Your task to perform on an android device: What's the news about the US dollar? Image 0: 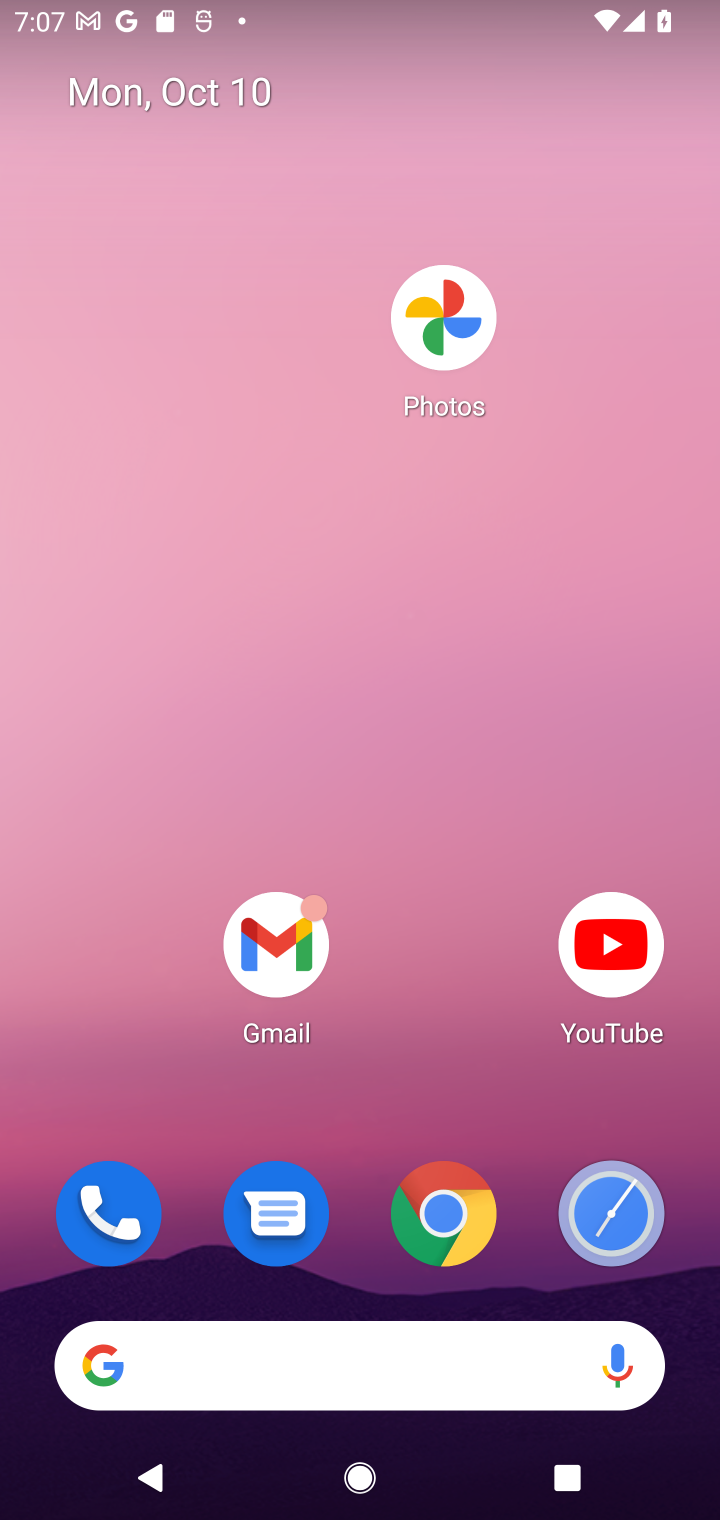
Step 0: click (335, 1338)
Your task to perform on an android device: What's the news about the US dollar? Image 1: 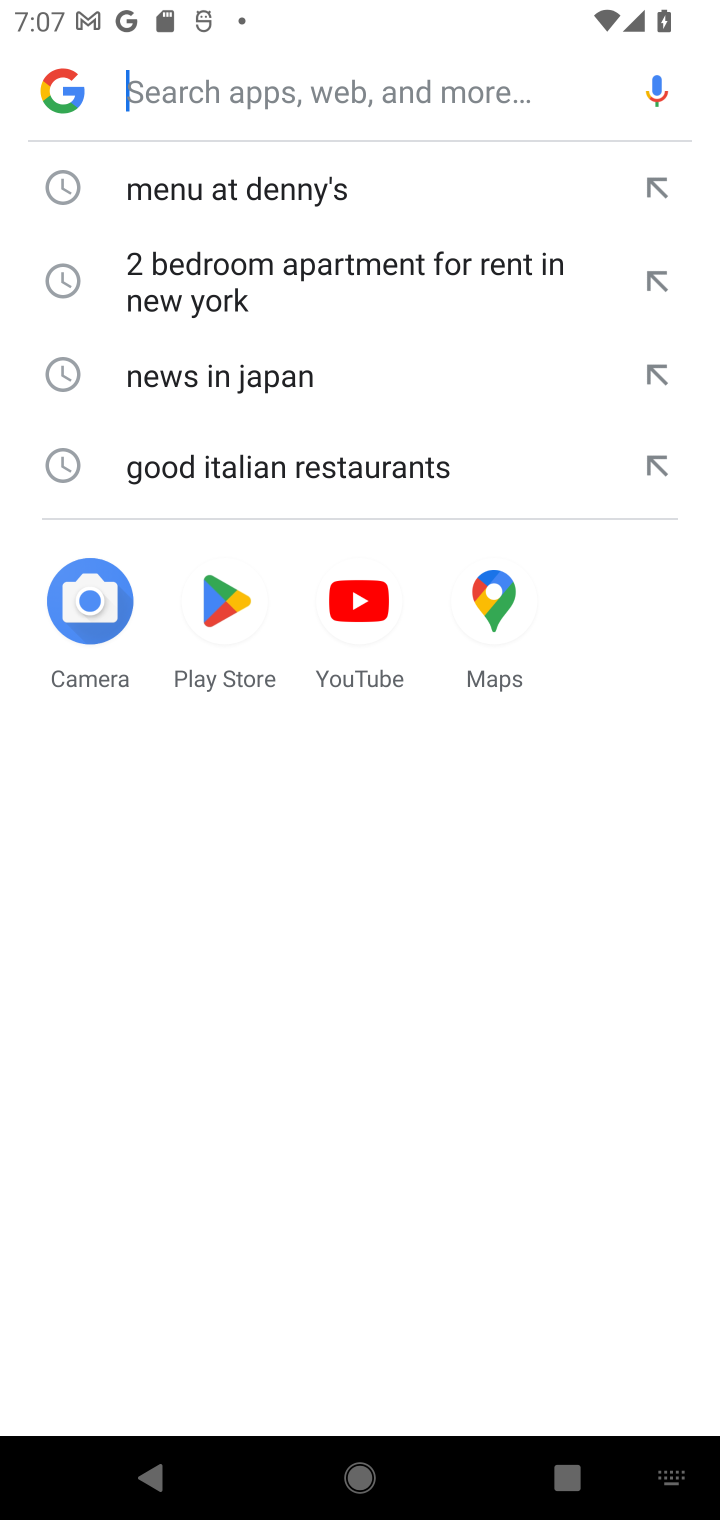
Step 1: type "news about the US dollar"
Your task to perform on an android device: What's the news about the US dollar? Image 2: 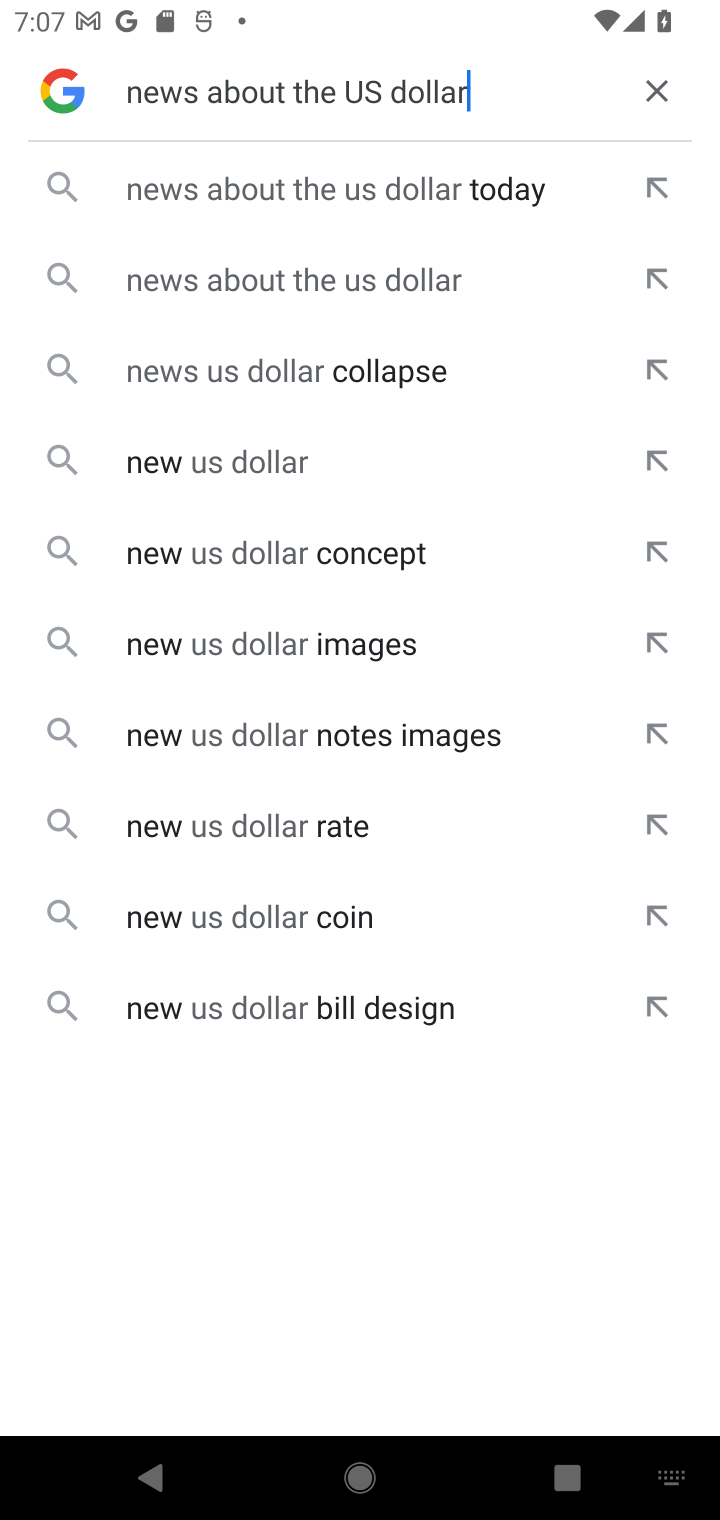
Step 2: click (267, 287)
Your task to perform on an android device: What's the news about the US dollar? Image 3: 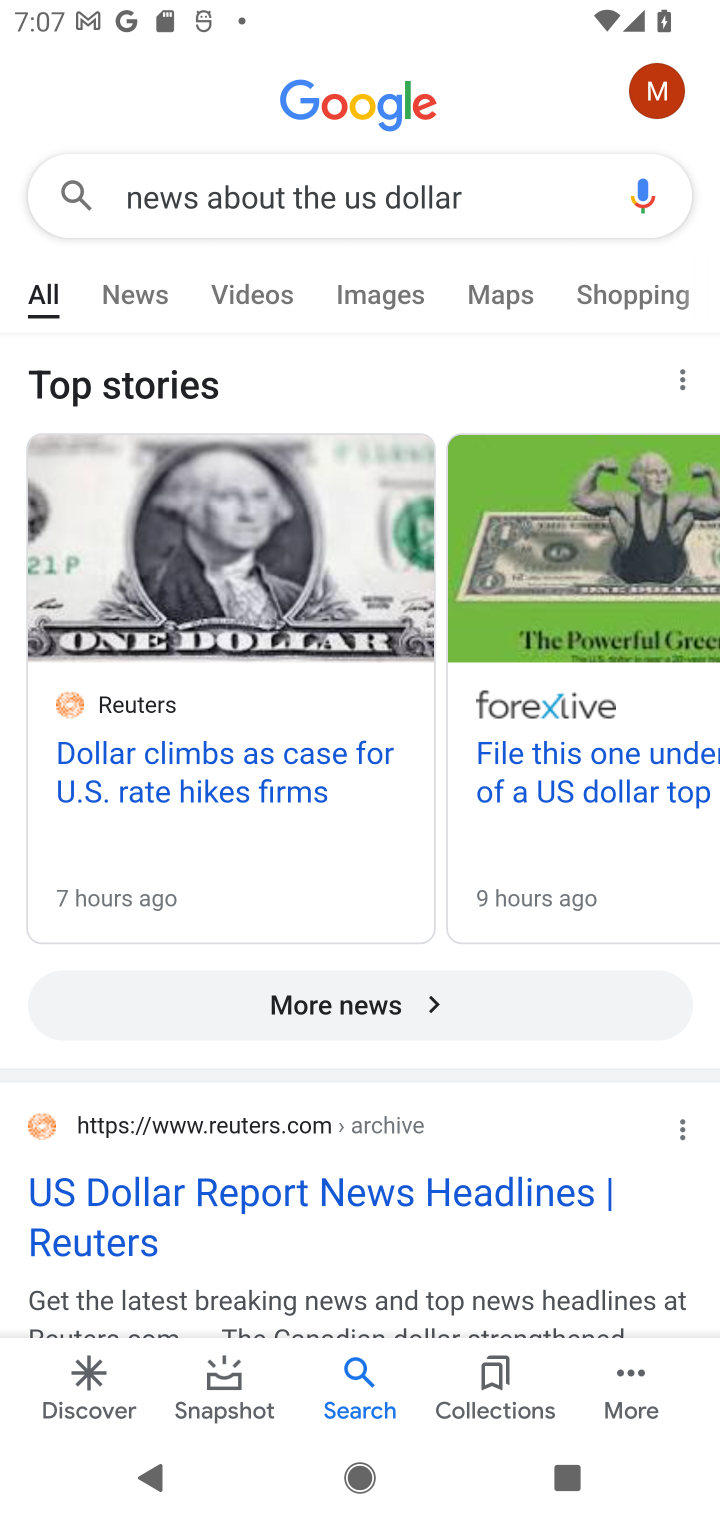
Step 3: click (383, 1242)
Your task to perform on an android device: What's the news about the US dollar? Image 4: 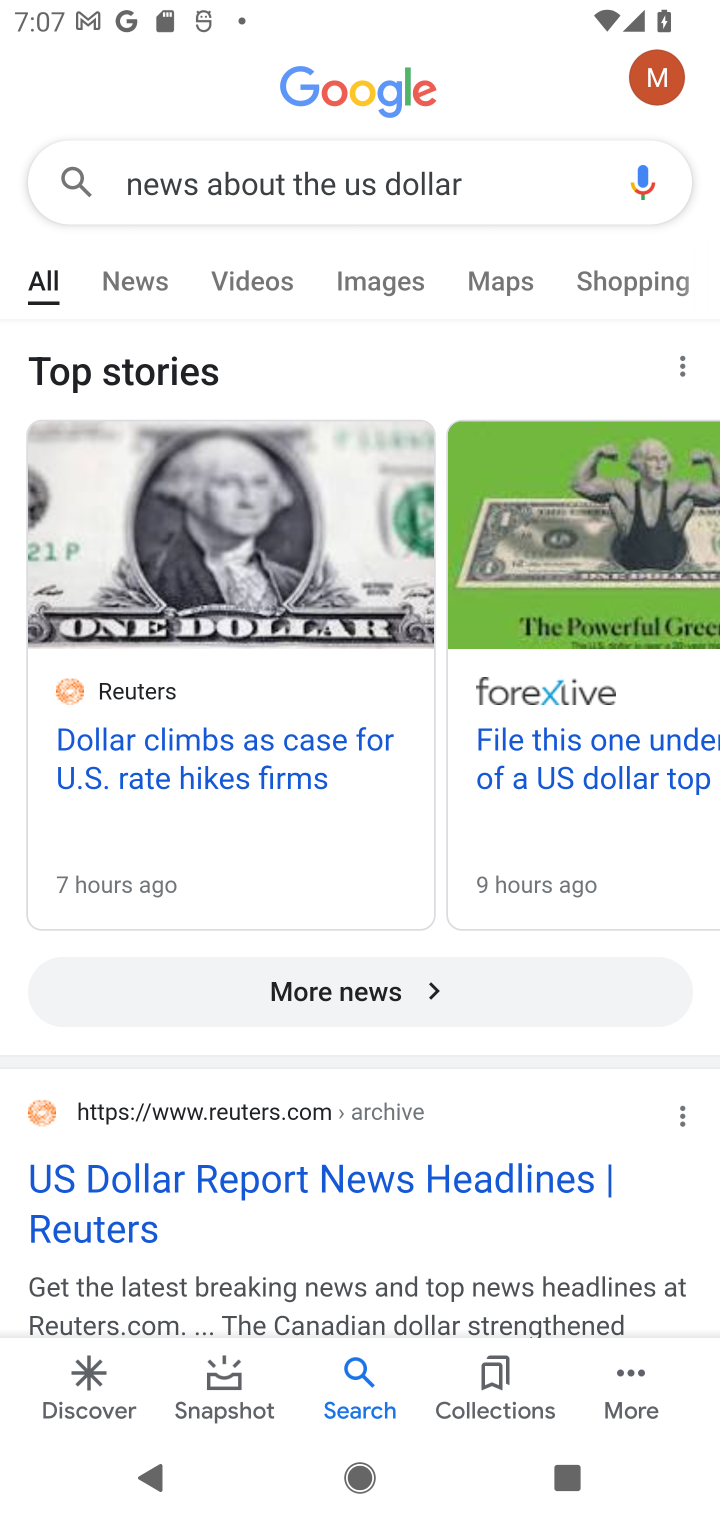
Step 4: click (125, 278)
Your task to perform on an android device: What's the news about the US dollar? Image 5: 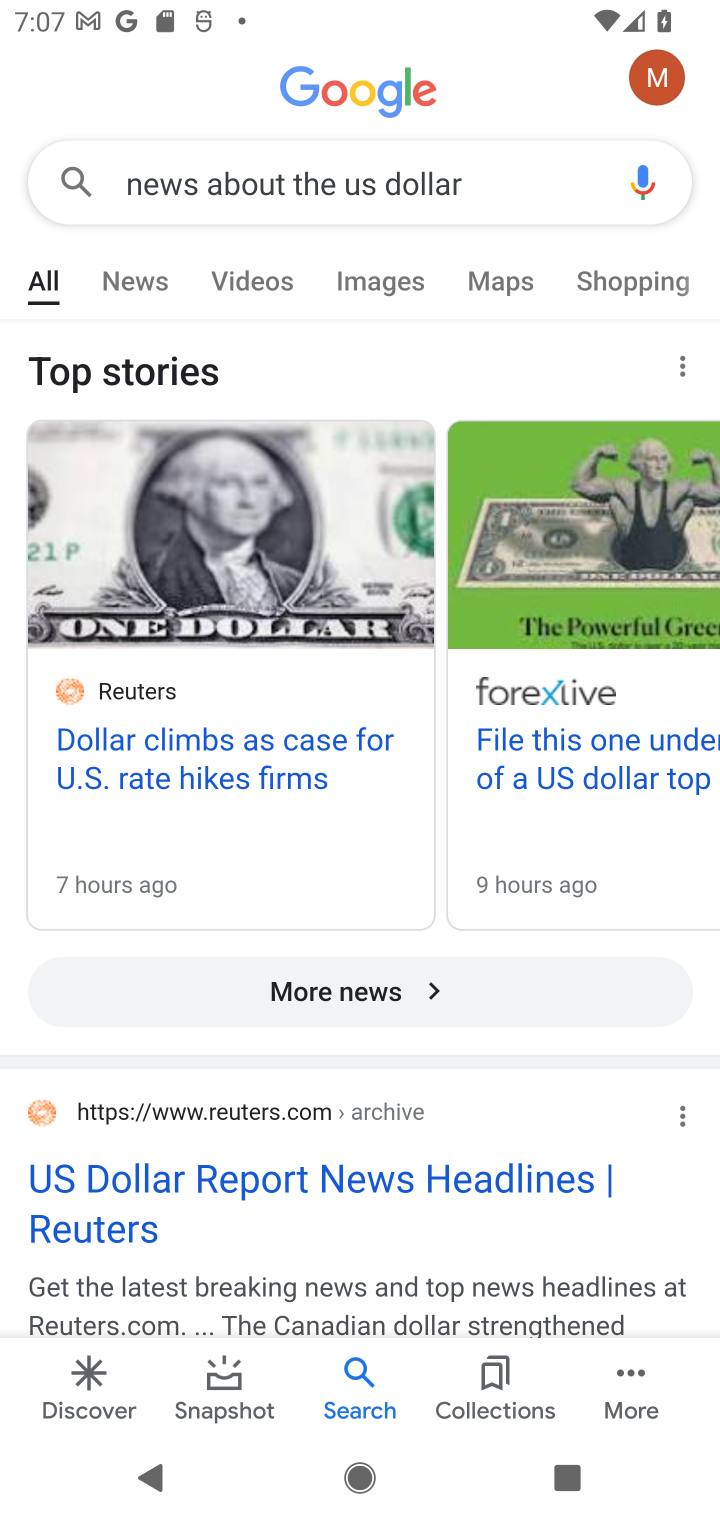
Step 5: click (139, 285)
Your task to perform on an android device: What's the news about the US dollar? Image 6: 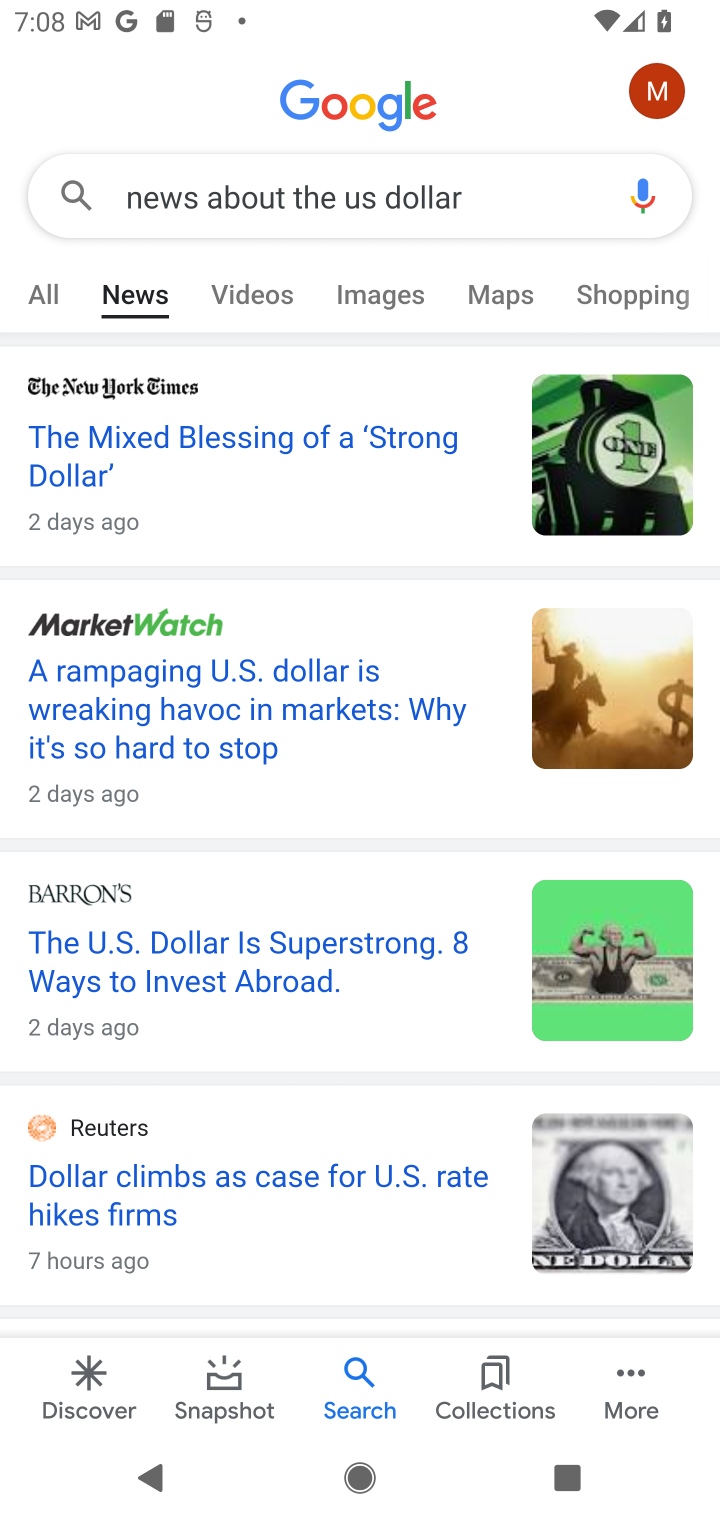
Step 6: task complete